Your task to perform on an android device: Open Yahoo.com Image 0: 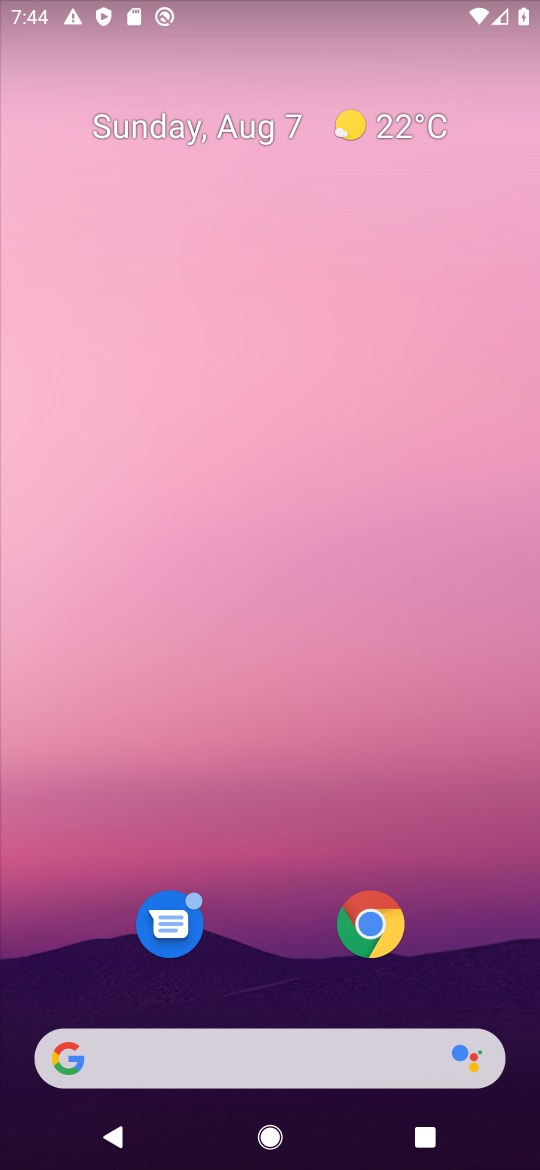
Step 0: click (221, 1064)
Your task to perform on an android device: Open Yahoo.com Image 1: 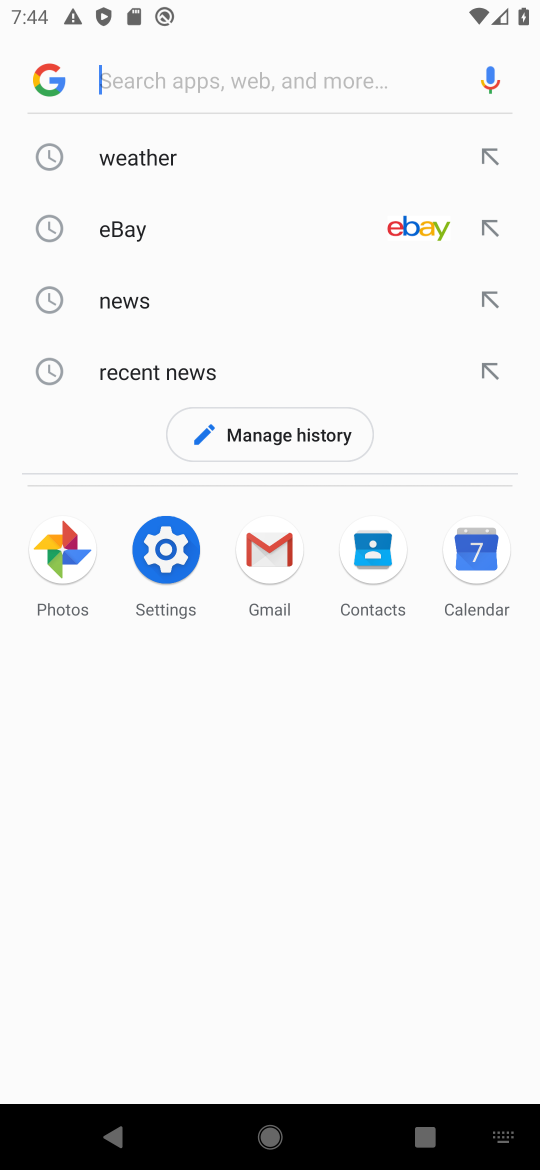
Step 1: type "yahoo.com"
Your task to perform on an android device: Open Yahoo.com Image 2: 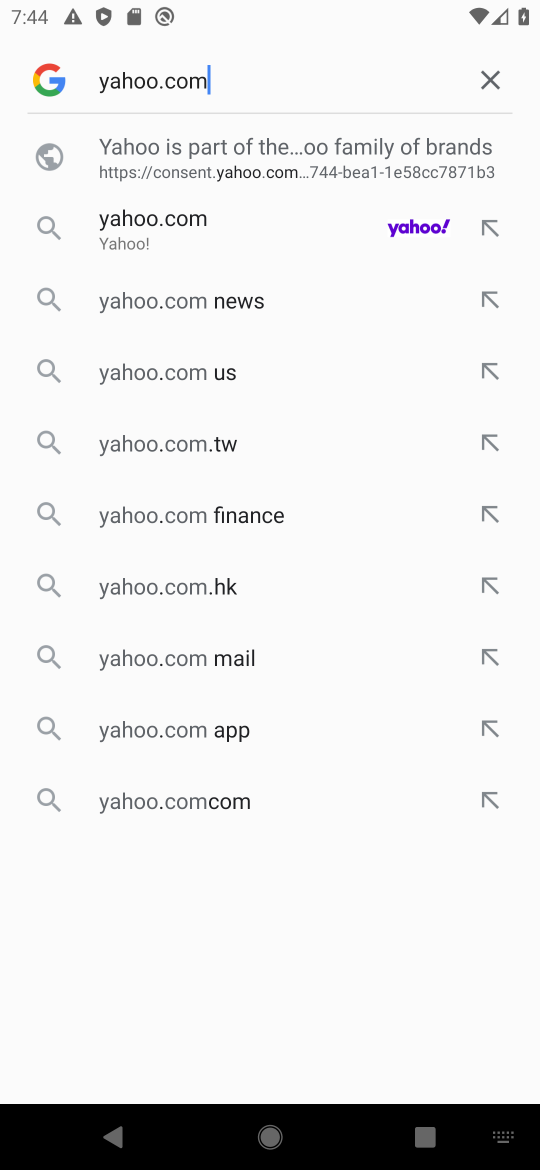
Step 2: click (257, 229)
Your task to perform on an android device: Open Yahoo.com Image 3: 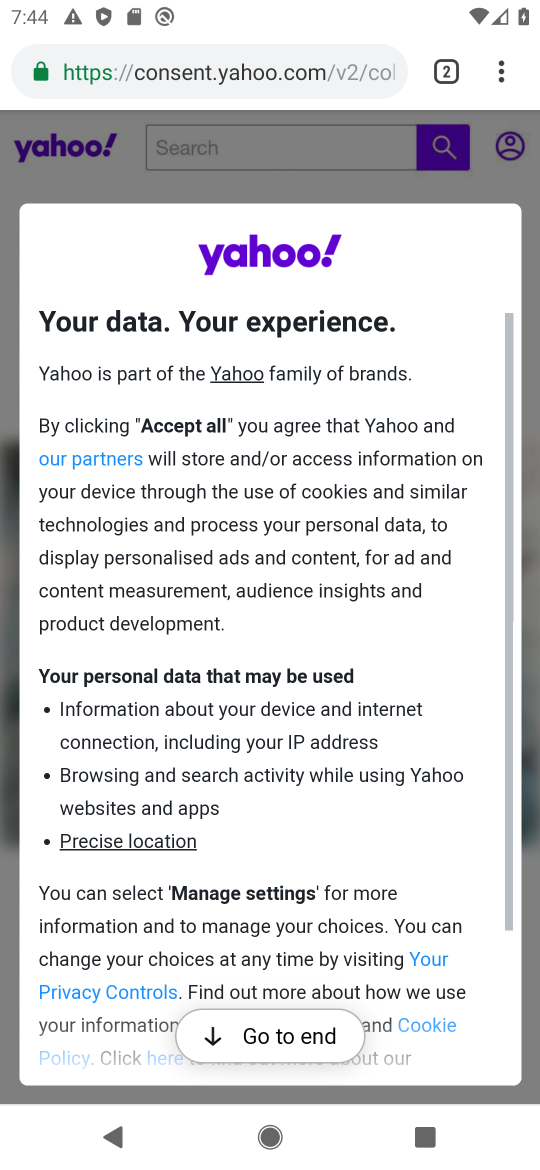
Step 3: click (281, 1034)
Your task to perform on an android device: Open Yahoo.com Image 4: 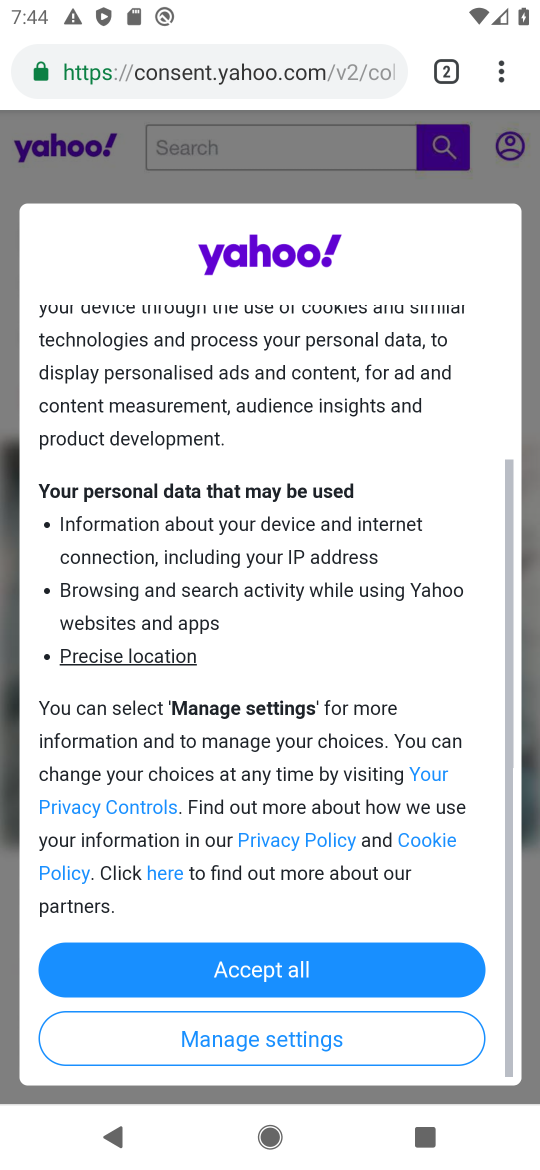
Step 4: click (291, 970)
Your task to perform on an android device: Open Yahoo.com Image 5: 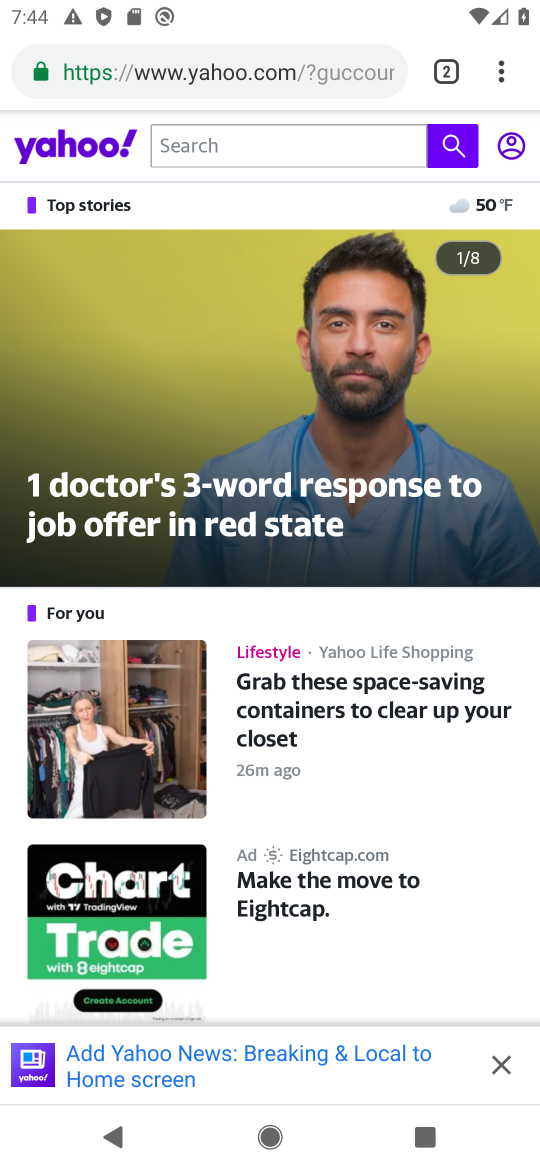
Step 5: task complete